Your task to perform on an android device: open wifi settings Image 0: 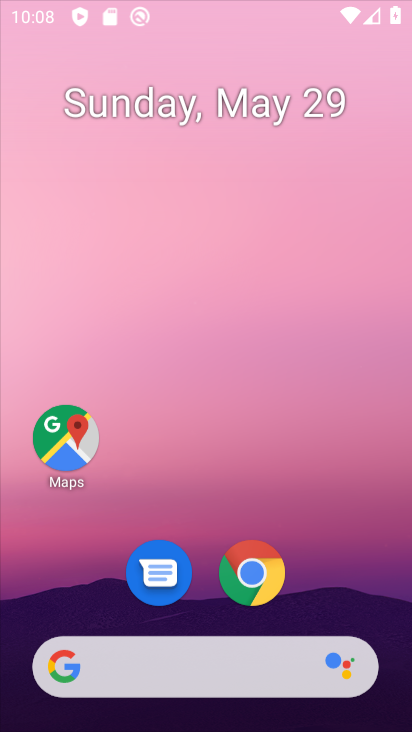
Step 0: click (201, 231)
Your task to perform on an android device: open wifi settings Image 1: 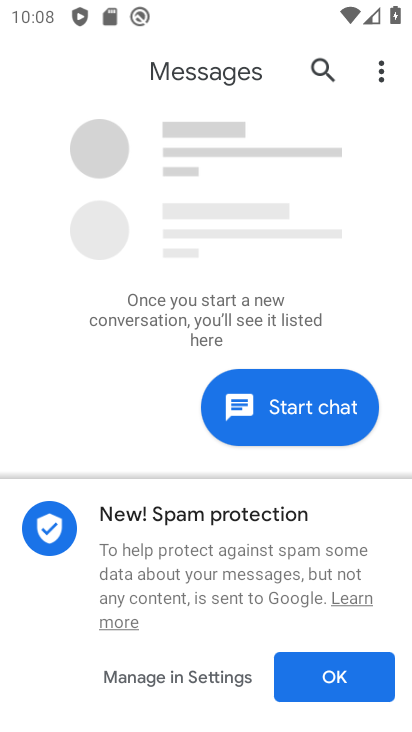
Step 1: press home button
Your task to perform on an android device: open wifi settings Image 2: 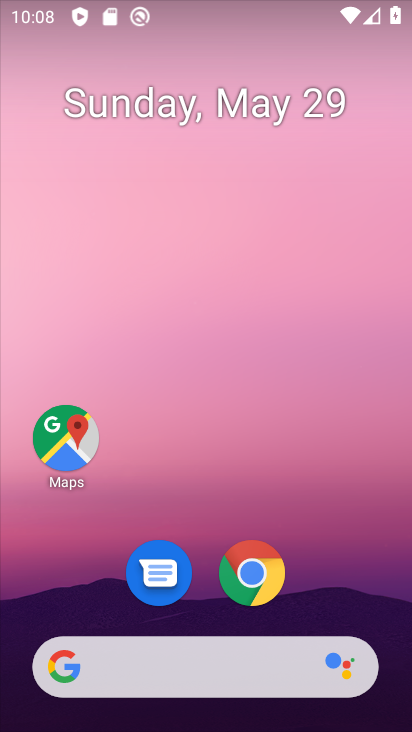
Step 2: drag from (81, 620) to (265, 81)
Your task to perform on an android device: open wifi settings Image 3: 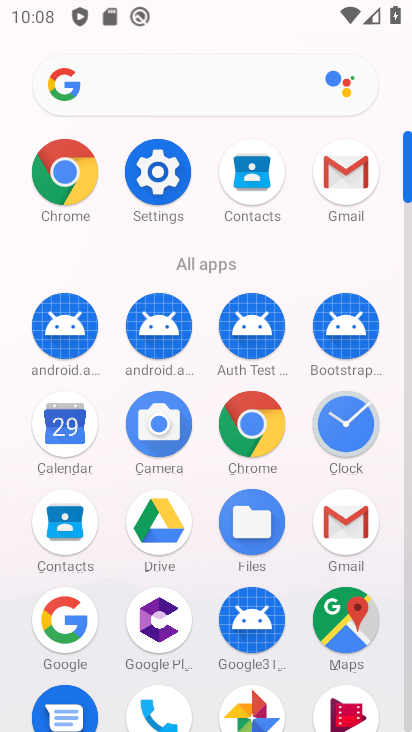
Step 3: drag from (139, 614) to (240, 326)
Your task to perform on an android device: open wifi settings Image 4: 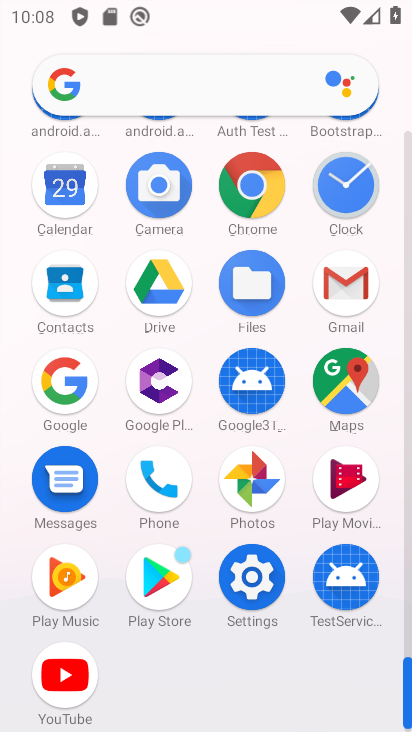
Step 4: click (251, 592)
Your task to perform on an android device: open wifi settings Image 5: 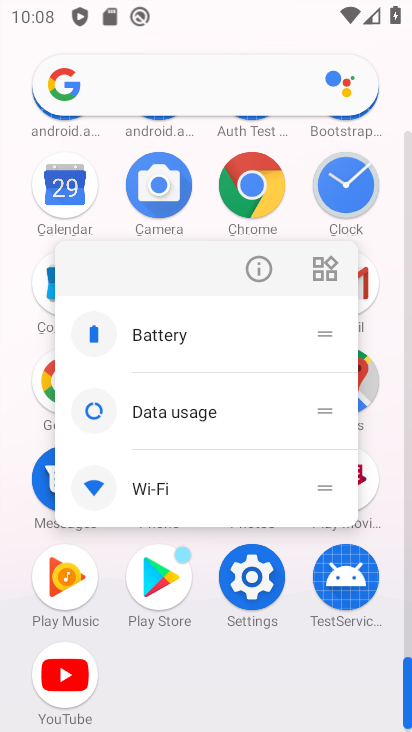
Step 5: click (251, 599)
Your task to perform on an android device: open wifi settings Image 6: 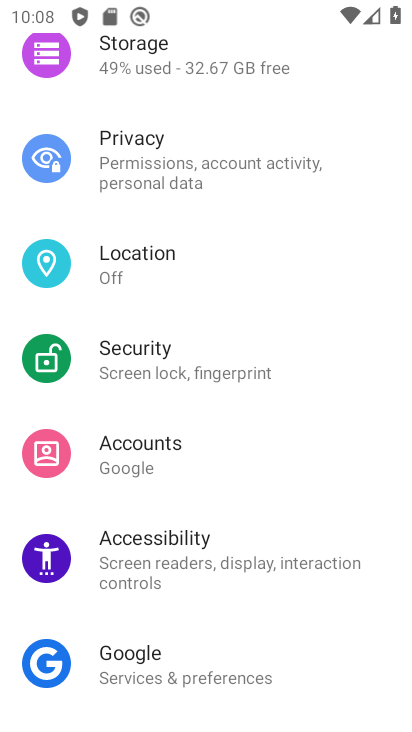
Step 6: drag from (295, 195) to (259, 633)
Your task to perform on an android device: open wifi settings Image 7: 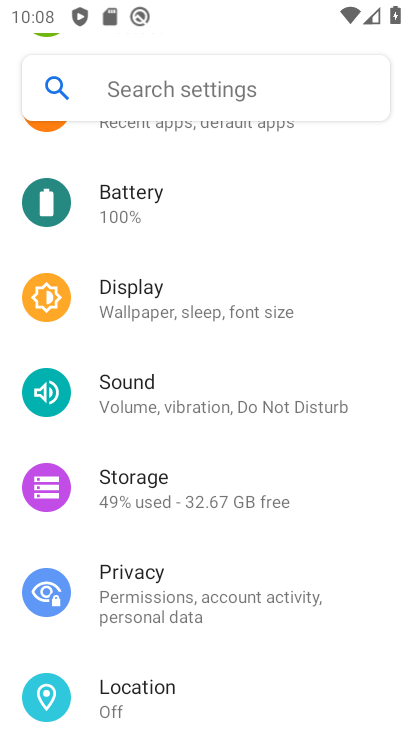
Step 7: drag from (286, 191) to (294, 563)
Your task to perform on an android device: open wifi settings Image 8: 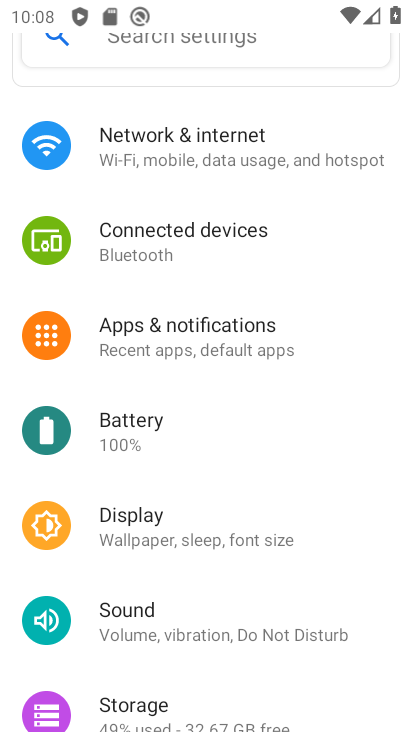
Step 8: drag from (311, 273) to (305, 602)
Your task to perform on an android device: open wifi settings Image 9: 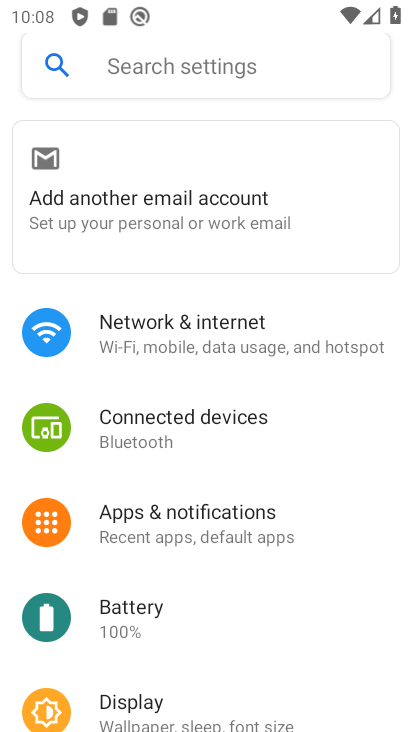
Step 9: click (273, 344)
Your task to perform on an android device: open wifi settings Image 10: 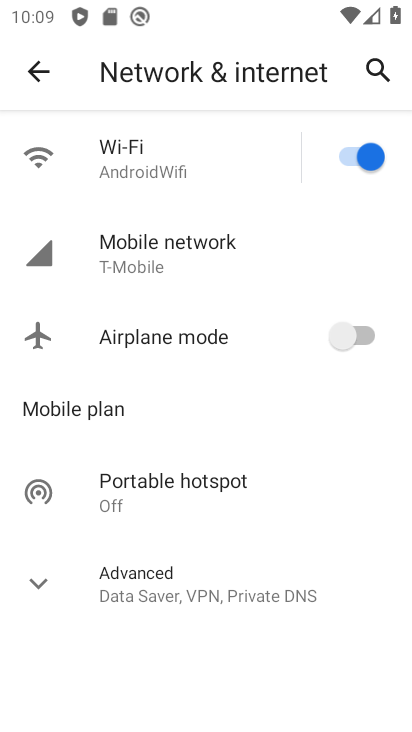
Step 10: click (163, 176)
Your task to perform on an android device: open wifi settings Image 11: 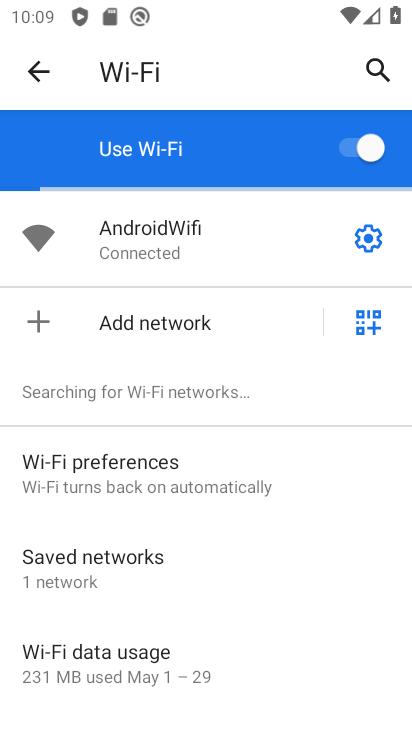
Step 11: task complete